Your task to perform on an android device: What is the recent news? Image 0: 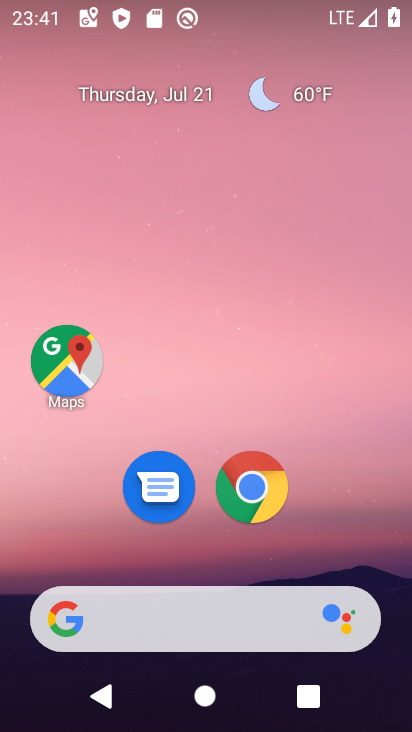
Step 0: click (202, 616)
Your task to perform on an android device: What is the recent news? Image 1: 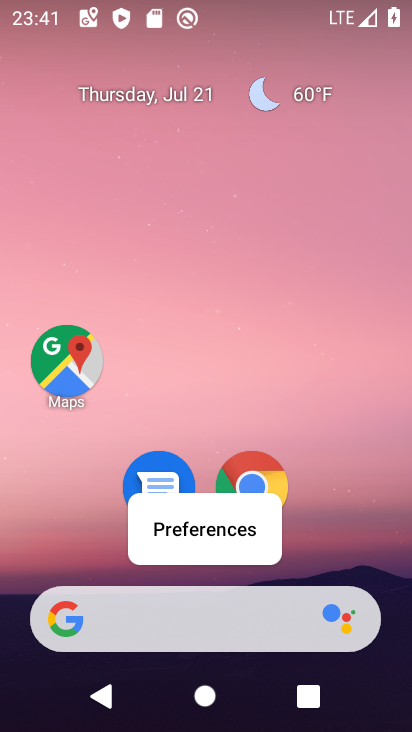
Step 1: click (154, 617)
Your task to perform on an android device: What is the recent news? Image 2: 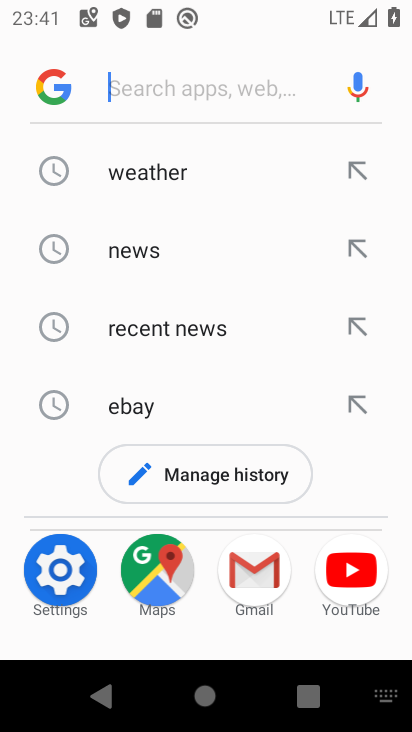
Step 2: click (162, 328)
Your task to perform on an android device: What is the recent news? Image 3: 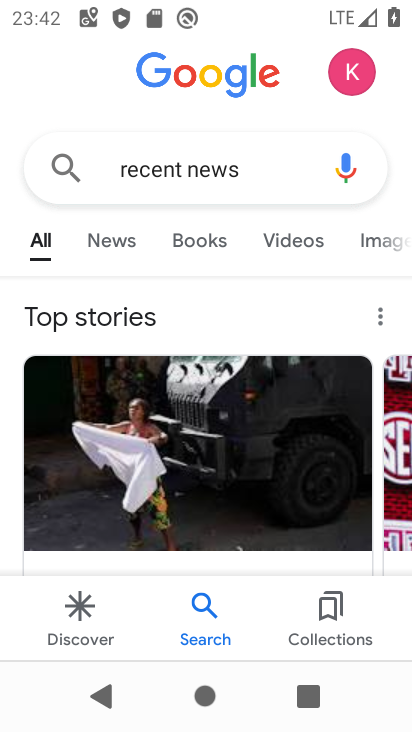
Step 3: task complete